Your task to perform on an android device: open chrome and create a bookmark for the current page Image 0: 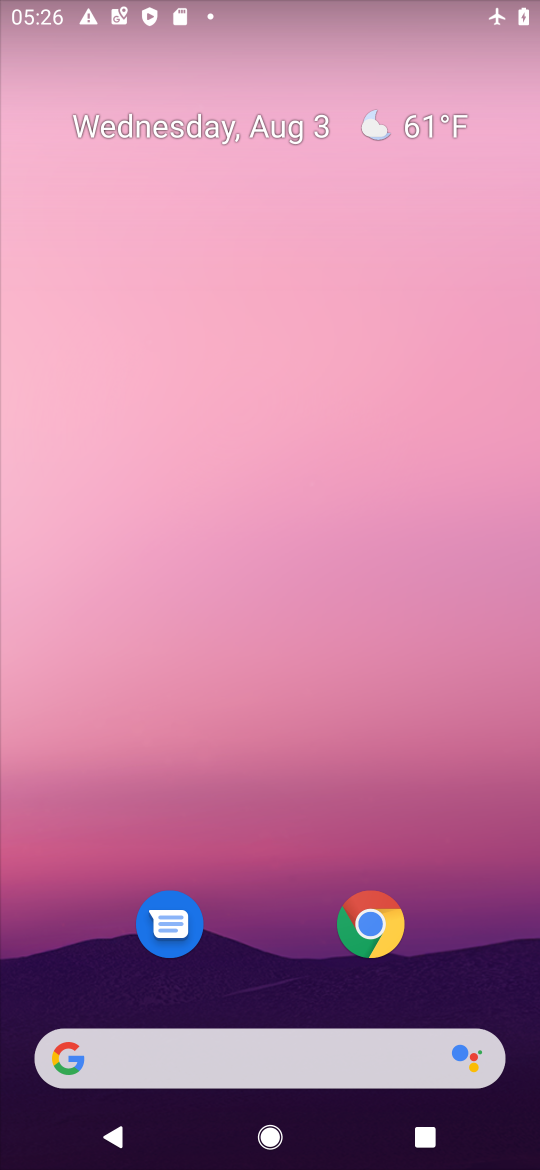
Step 0: click (391, 949)
Your task to perform on an android device: open chrome and create a bookmark for the current page Image 1: 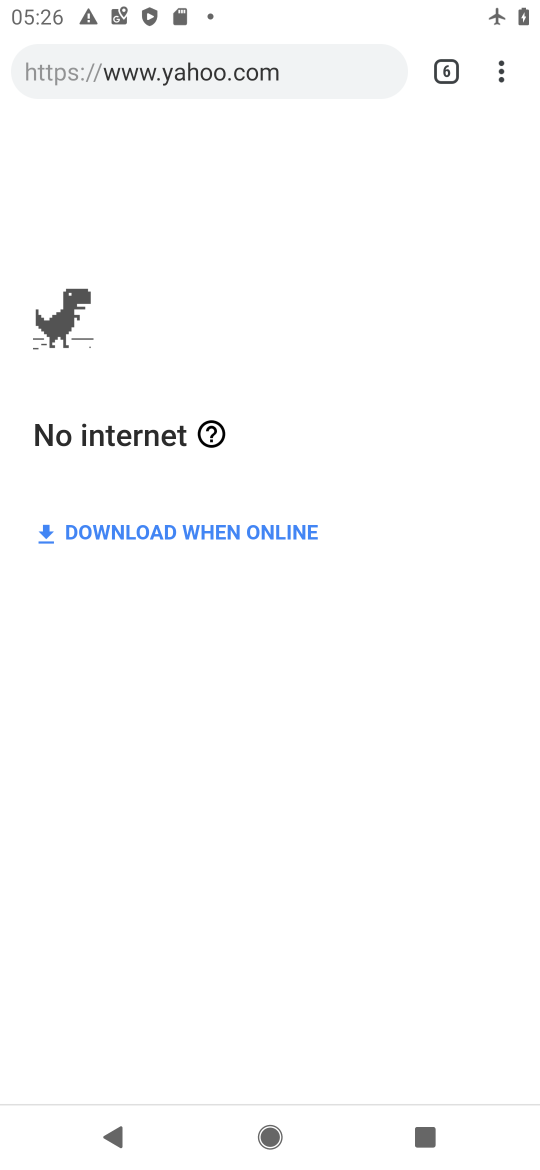
Step 1: task complete